Your task to perform on an android device: toggle javascript in the chrome app Image 0: 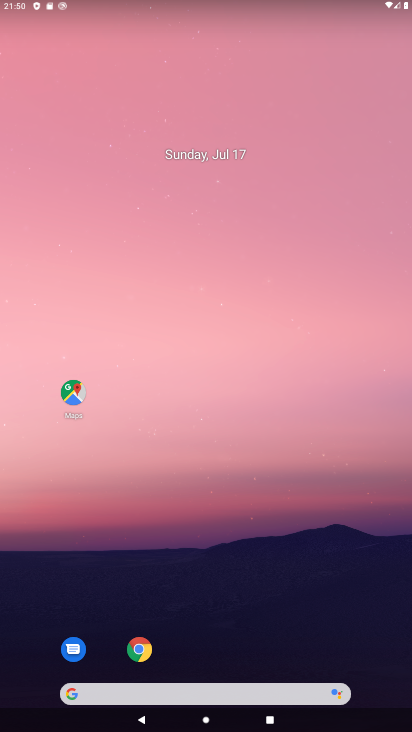
Step 0: click (149, 648)
Your task to perform on an android device: toggle javascript in the chrome app Image 1: 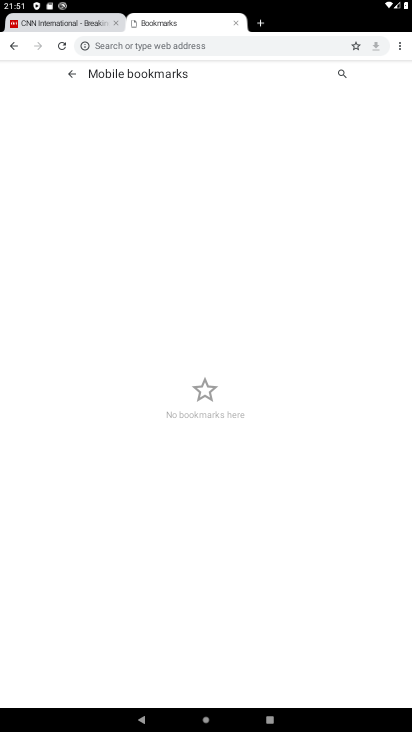
Step 1: click (398, 44)
Your task to perform on an android device: toggle javascript in the chrome app Image 2: 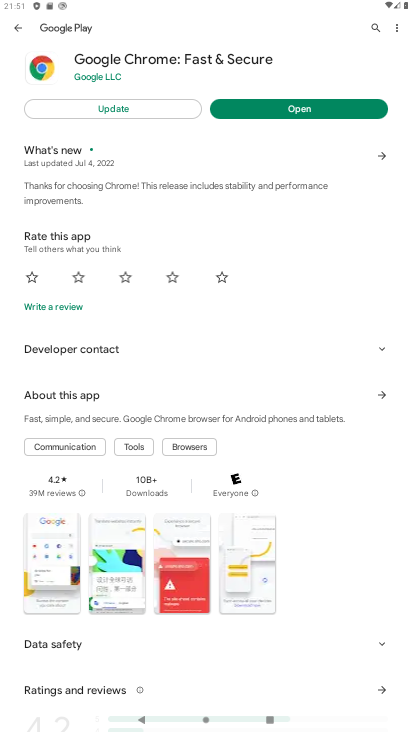
Step 2: click (12, 25)
Your task to perform on an android device: toggle javascript in the chrome app Image 3: 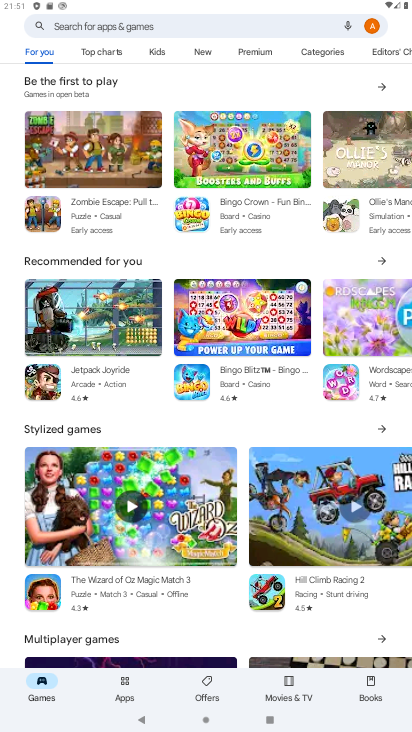
Step 3: click (288, 22)
Your task to perform on an android device: toggle javascript in the chrome app Image 4: 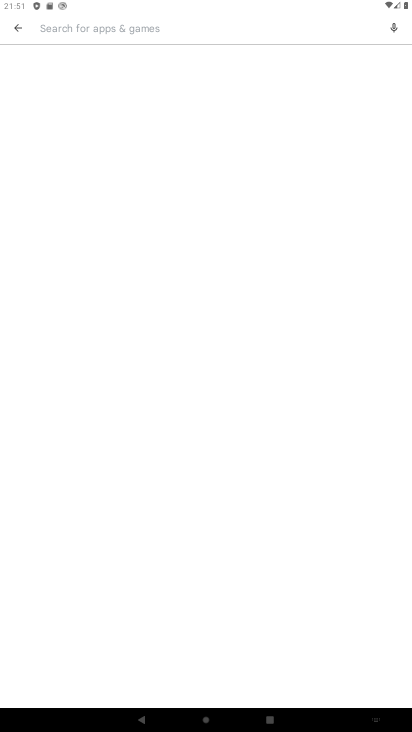
Step 4: task complete